Your task to perform on an android device: toggle pop-ups in chrome Image 0: 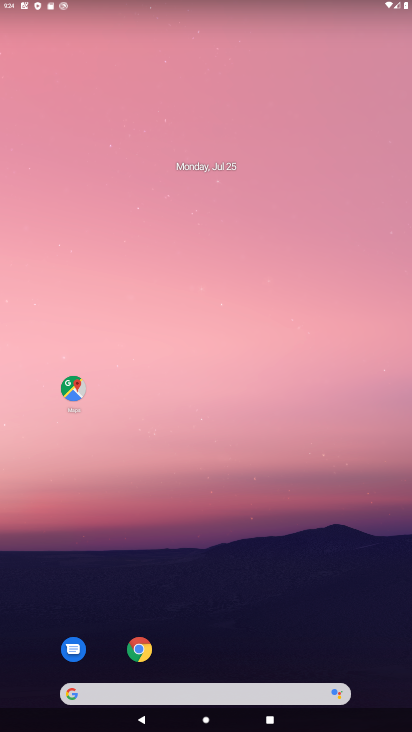
Step 0: drag from (222, 654) to (25, 26)
Your task to perform on an android device: toggle pop-ups in chrome Image 1: 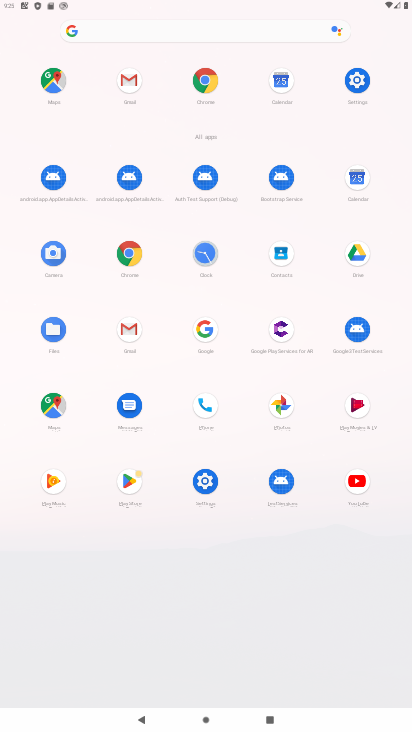
Step 1: click (197, 92)
Your task to perform on an android device: toggle pop-ups in chrome Image 2: 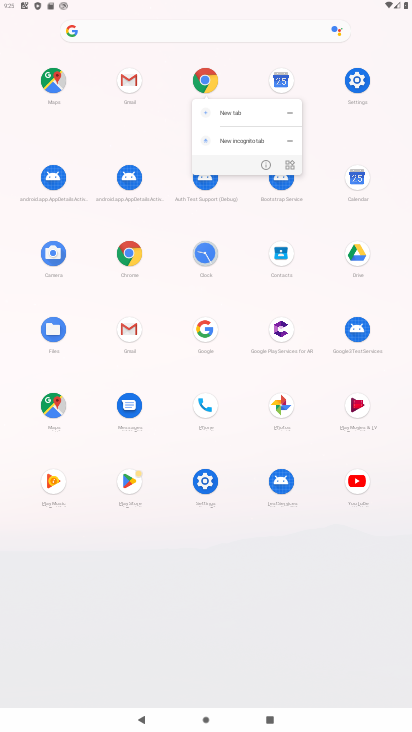
Step 2: click (205, 81)
Your task to perform on an android device: toggle pop-ups in chrome Image 3: 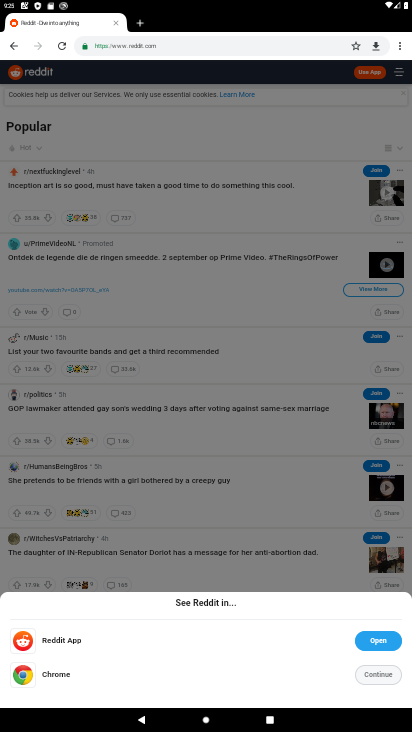
Step 3: drag from (400, 47) to (295, 309)
Your task to perform on an android device: toggle pop-ups in chrome Image 4: 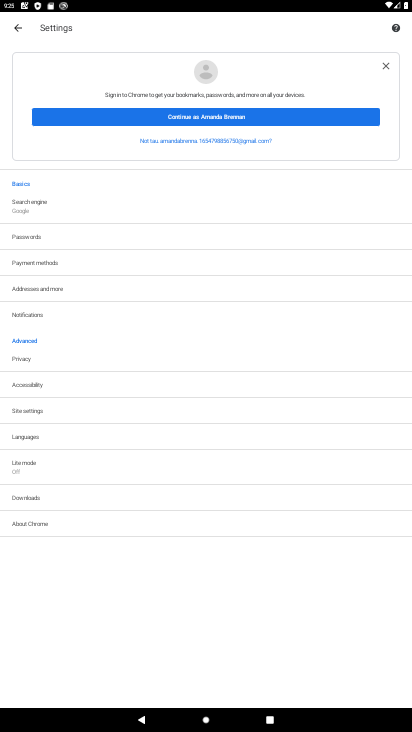
Step 4: click (49, 415)
Your task to perform on an android device: toggle pop-ups in chrome Image 5: 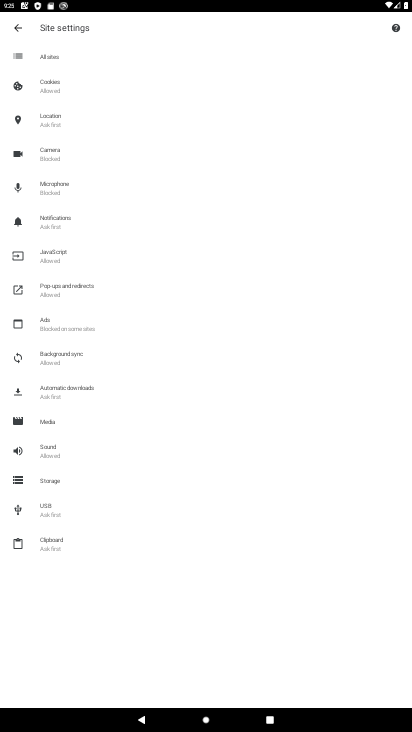
Step 5: click (85, 290)
Your task to perform on an android device: toggle pop-ups in chrome Image 6: 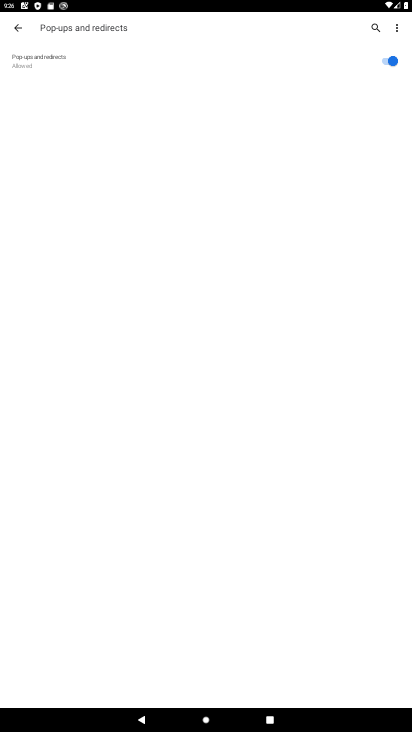
Step 6: click (390, 63)
Your task to perform on an android device: toggle pop-ups in chrome Image 7: 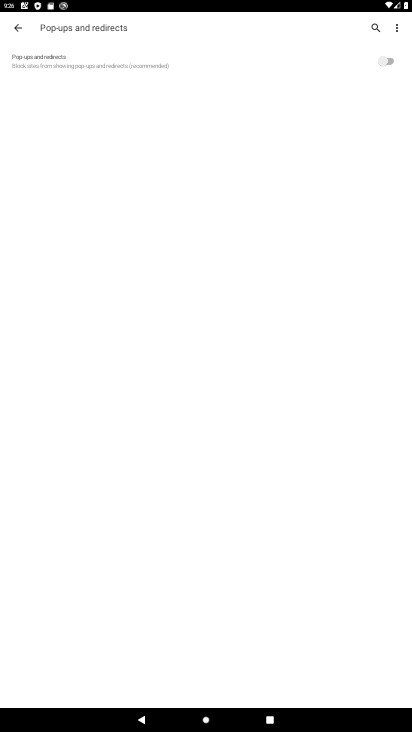
Step 7: task complete